Your task to perform on an android device: Open sound settings Image 0: 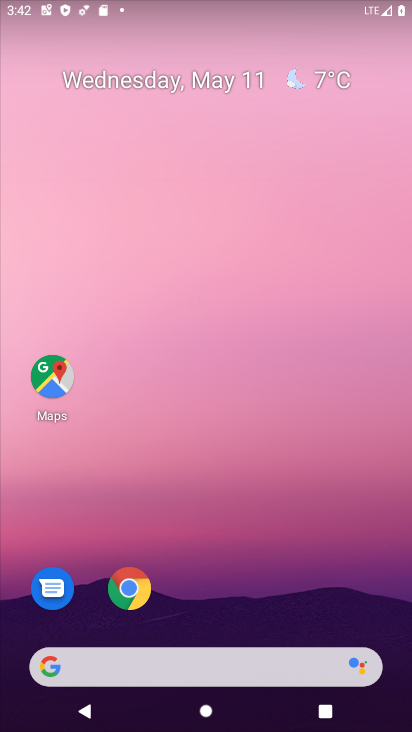
Step 0: drag from (236, 723) to (233, 172)
Your task to perform on an android device: Open sound settings Image 1: 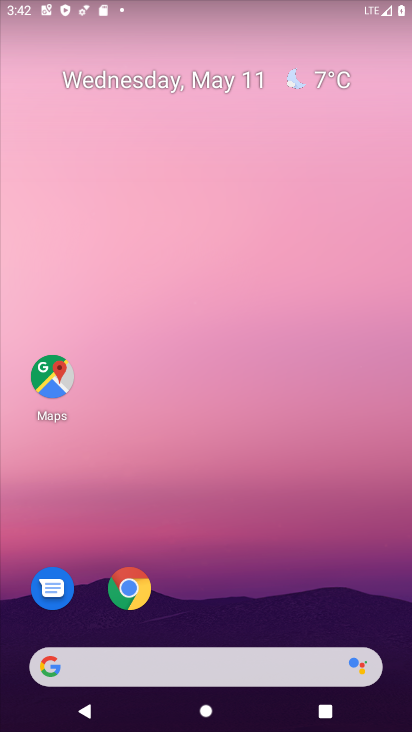
Step 1: drag from (226, 713) to (223, 162)
Your task to perform on an android device: Open sound settings Image 2: 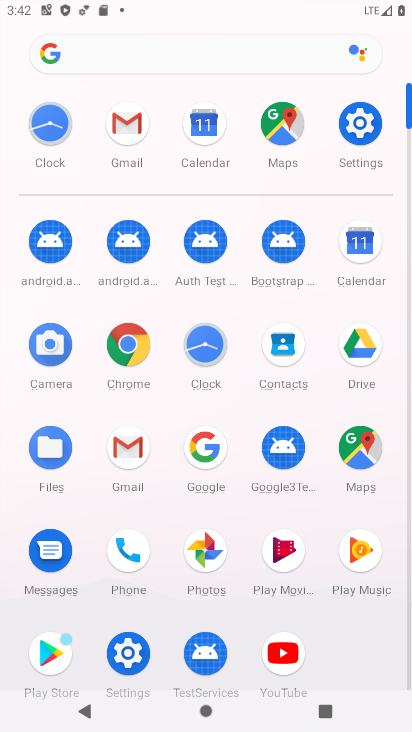
Step 2: click (362, 127)
Your task to perform on an android device: Open sound settings Image 3: 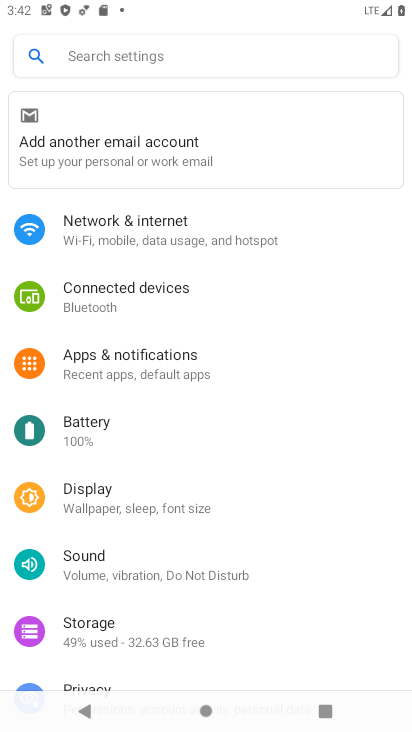
Step 3: click (82, 567)
Your task to perform on an android device: Open sound settings Image 4: 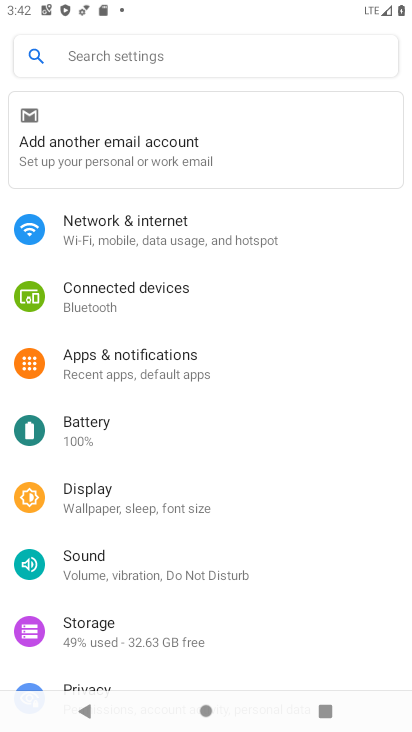
Step 4: click (102, 565)
Your task to perform on an android device: Open sound settings Image 5: 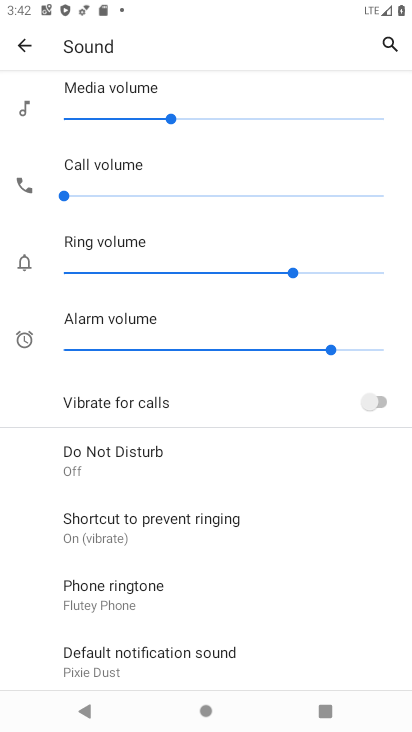
Step 5: task complete